Your task to perform on an android device: all mails in gmail Image 0: 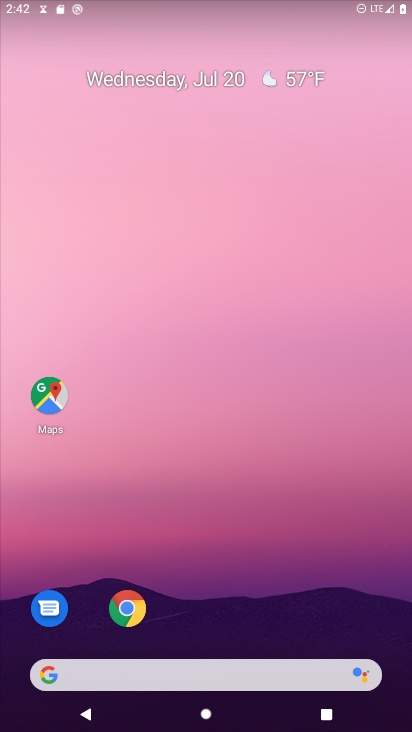
Step 0: drag from (236, 717) to (230, 270)
Your task to perform on an android device: all mails in gmail Image 1: 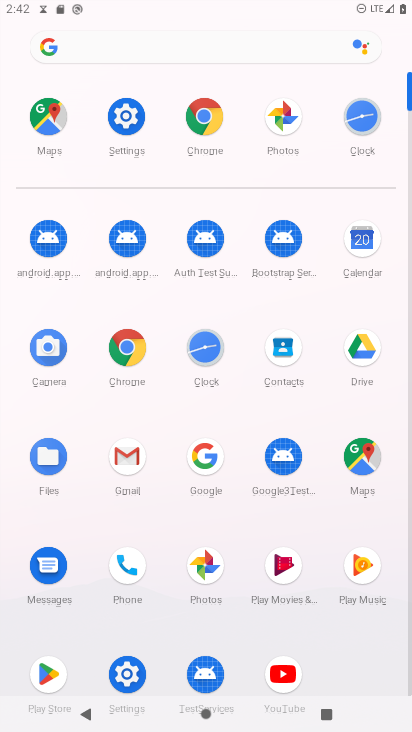
Step 1: click (124, 454)
Your task to perform on an android device: all mails in gmail Image 2: 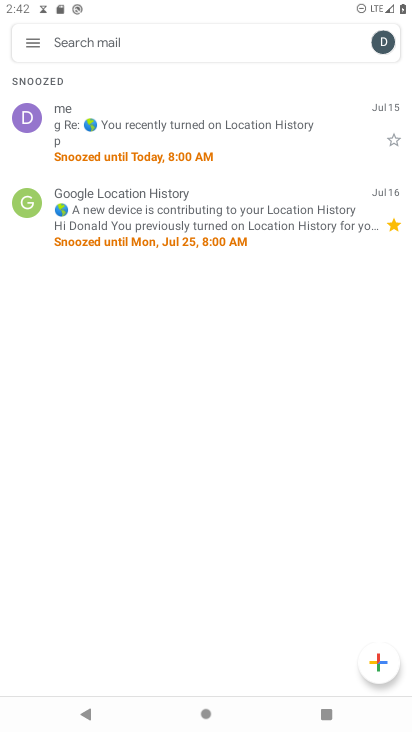
Step 2: click (33, 47)
Your task to perform on an android device: all mails in gmail Image 3: 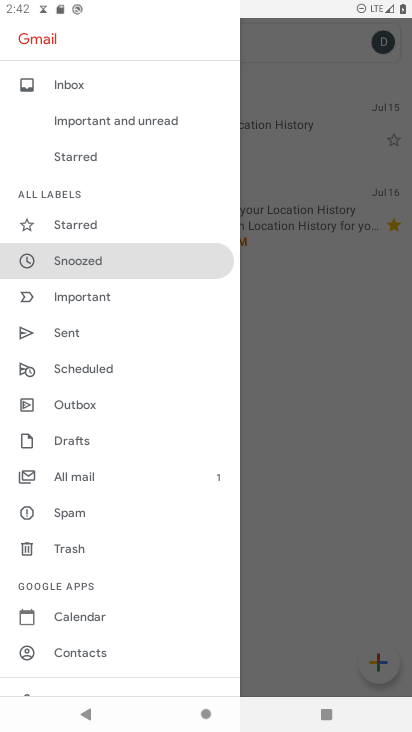
Step 3: click (90, 473)
Your task to perform on an android device: all mails in gmail Image 4: 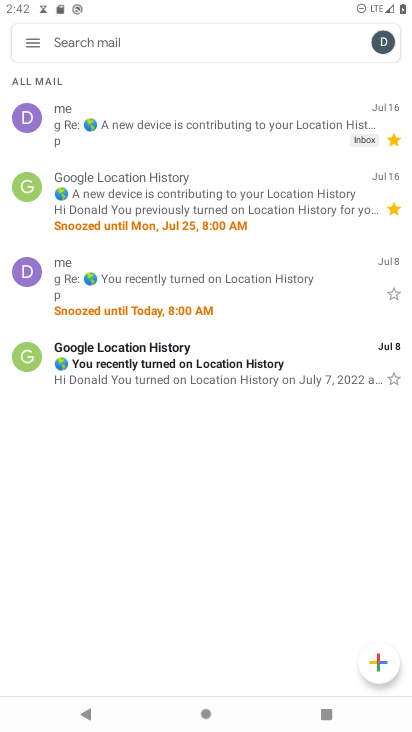
Step 4: task complete